Your task to perform on an android device: Check the news Image 0: 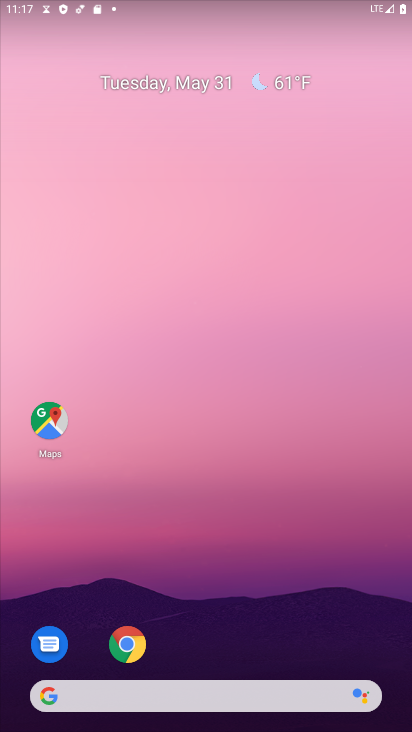
Step 0: click (174, 694)
Your task to perform on an android device: Check the news Image 1: 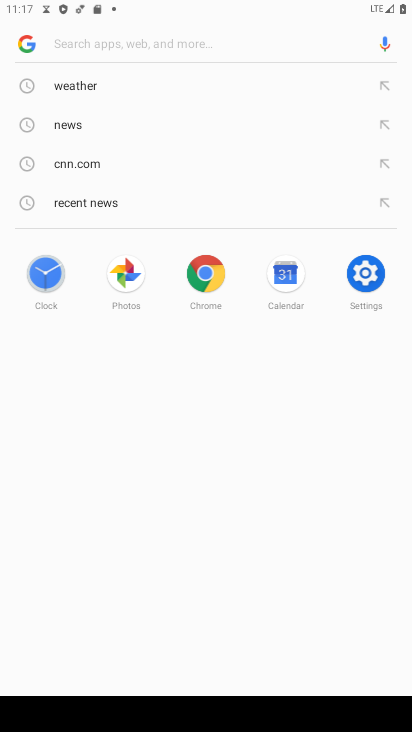
Step 1: click (76, 127)
Your task to perform on an android device: Check the news Image 2: 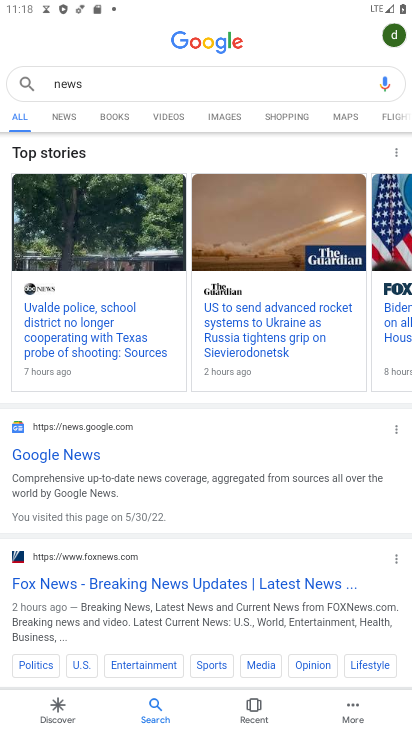
Step 2: task complete